Your task to perform on an android device: move a message to another label in the gmail app Image 0: 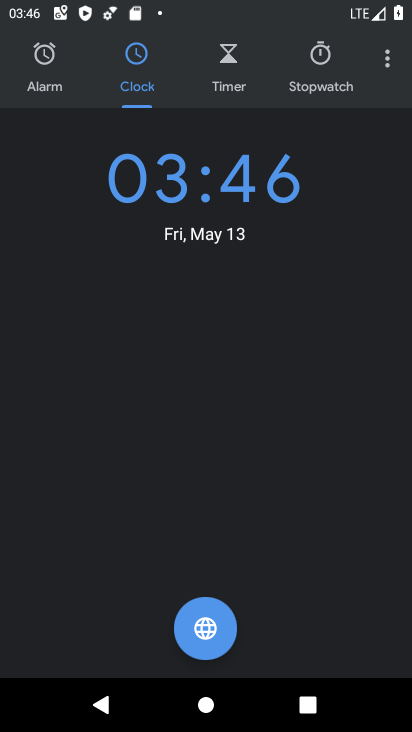
Step 0: press home button
Your task to perform on an android device: move a message to another label in the gmail app Image 1: 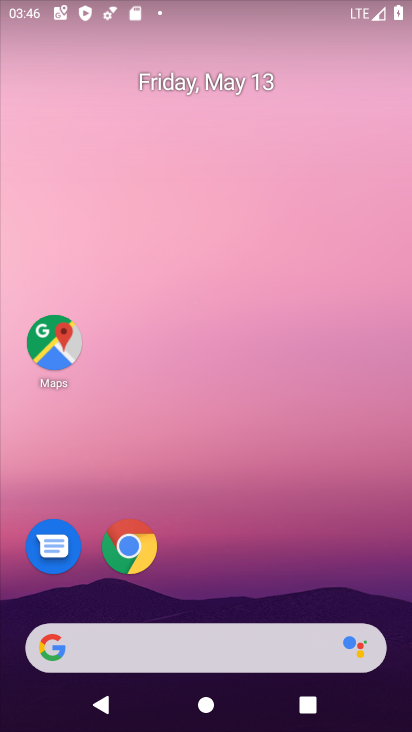
Step 1: drag from (255, 567) to (316, 106)
Your task to perform on an android device: move a message to another label in the gmail app Image 2: 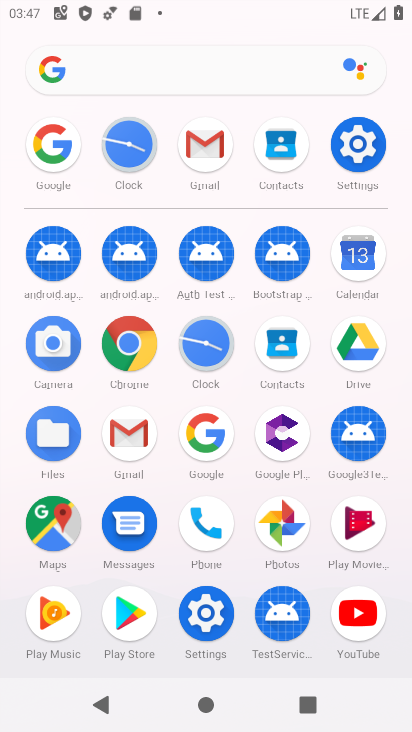
Step 2: click (198, 139)
Your task to perform on an android device: move a message to another label in the gmail app Image 3: 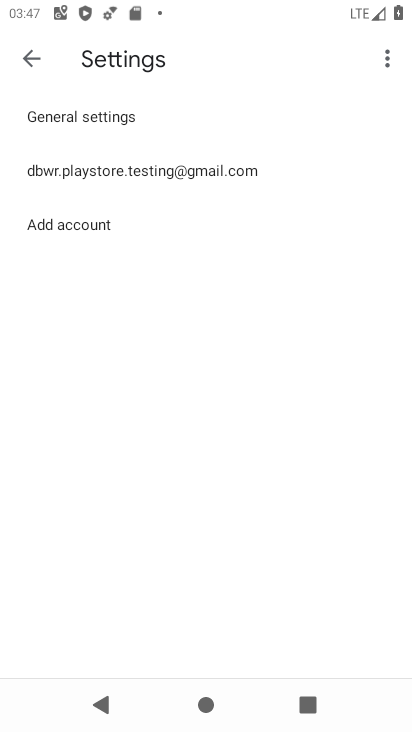
Step 3: click (148, 153)
Your task to perform on an android device: move a message to another label in the gmail app Image 4: 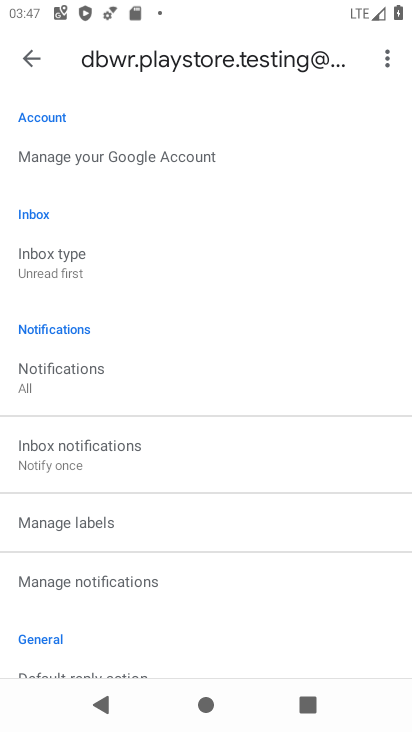
Step 4: click (21, 67)
Your task to perform on an android device: move a message to another label in the gmail app Image 5: 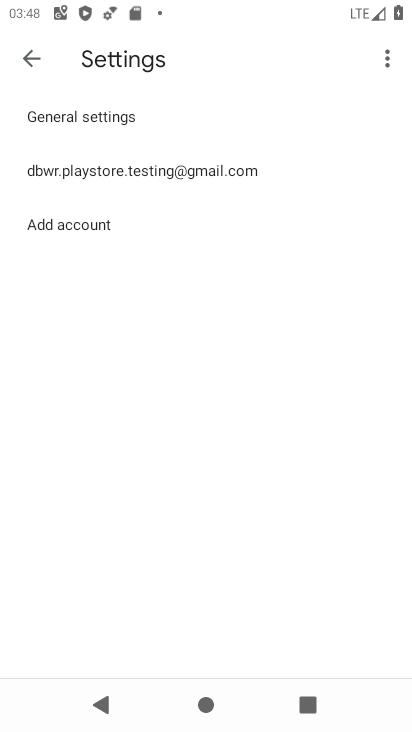
Step 5: task complete